Your task to perform on an android device: Open calendar and show me the third week of next month Image 0: 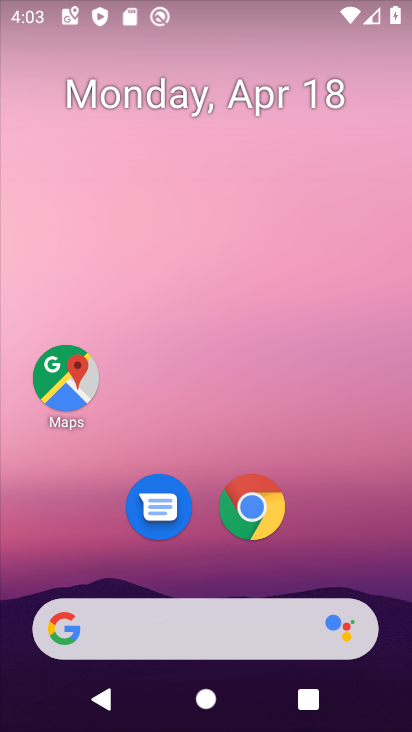
Step 0: drag from (258, 654) to (238, 1)
Your task to perform on an android device: Open calendar and show me the third week of next month Image 1: 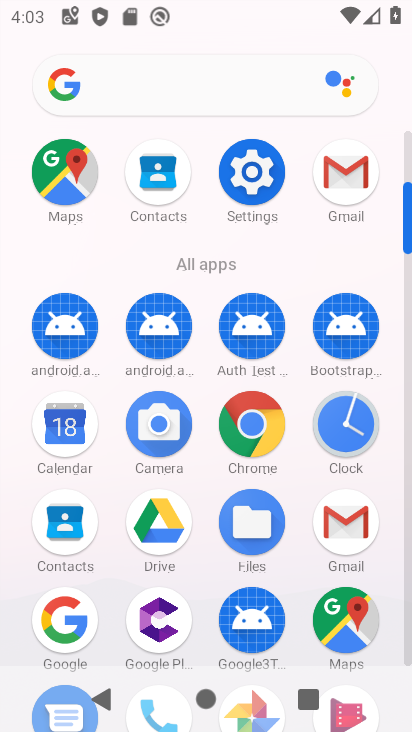
Step 1: click (58, 435)
Your task to perform on an android device: Open calendar and show me the third week of next month Image 2: 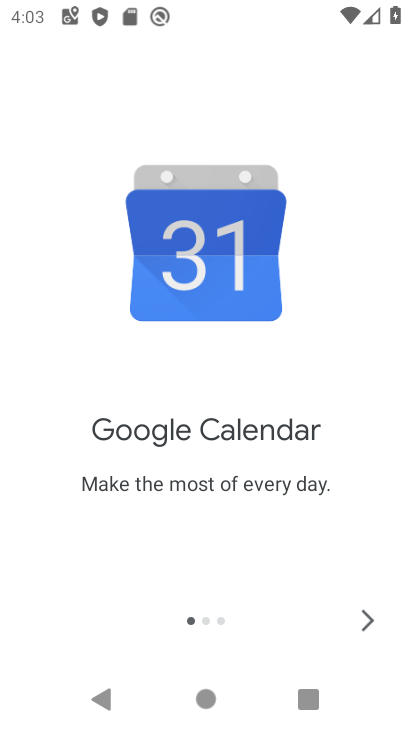
Step 2: click (366, 613)
Your task to perform on an android device: Open calendar and show me the third week of next month Image 3: 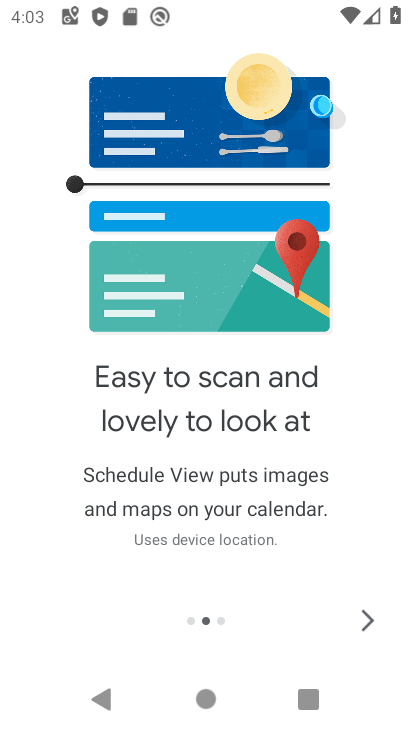
Step 3: click (367, 613)
Your task to perform on an android device: Open calendar and show me the third week of next month Image 4: 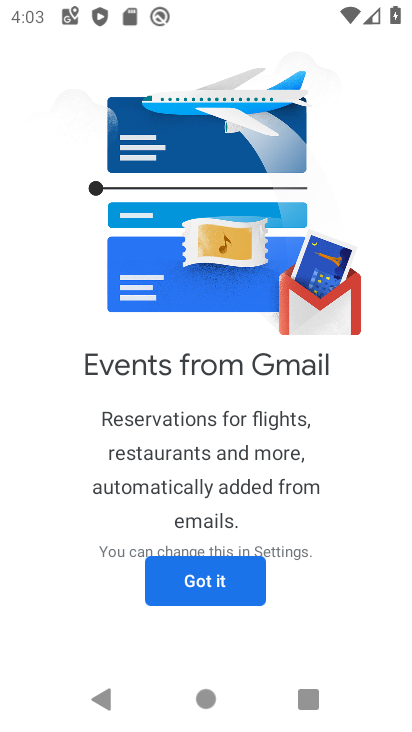
Step 4: click (184, 582)
Your task to perform on an android device: Open calendar and show me the third week of next month Image 5: 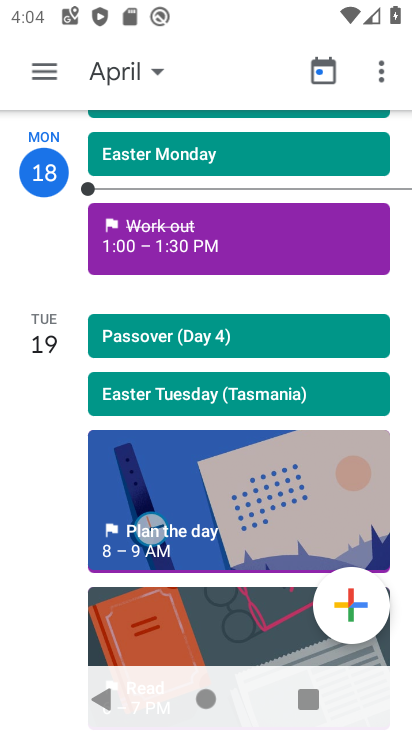
Step 5: click (115, 88)
Your task to perform on an android device: Open calendar and show me the third week of next month Image 6: 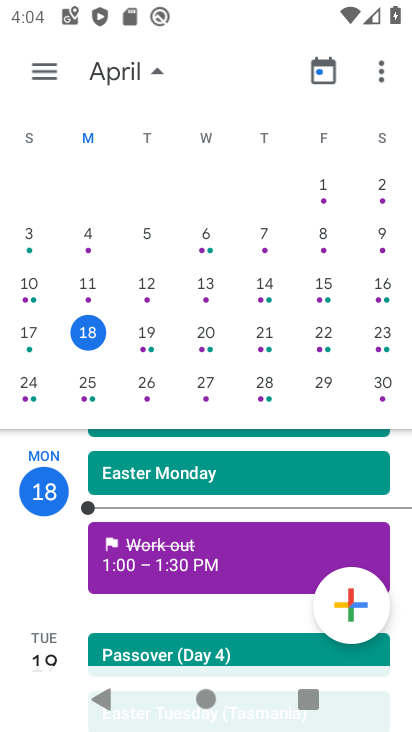
Step 6: drag from (304, 350) to (39, 337)
Your task to perform on an android device: Open calendar and show me the third week of next month Image 7: 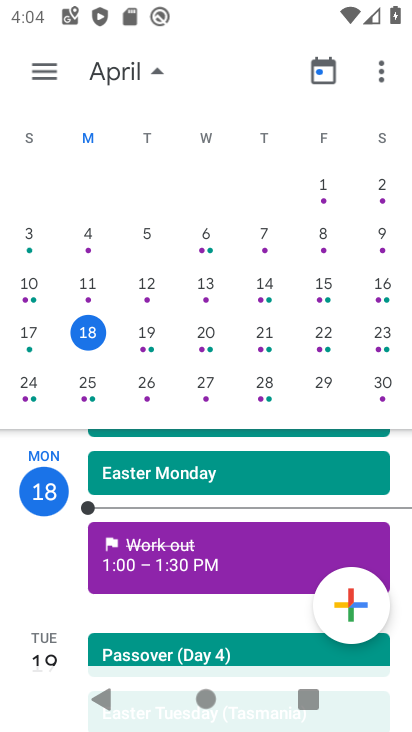
Step 7: drag from (368, 251) to (19, 293)
Your task to perform on an android device: Open calendar and show me the third week of next month Image 8: 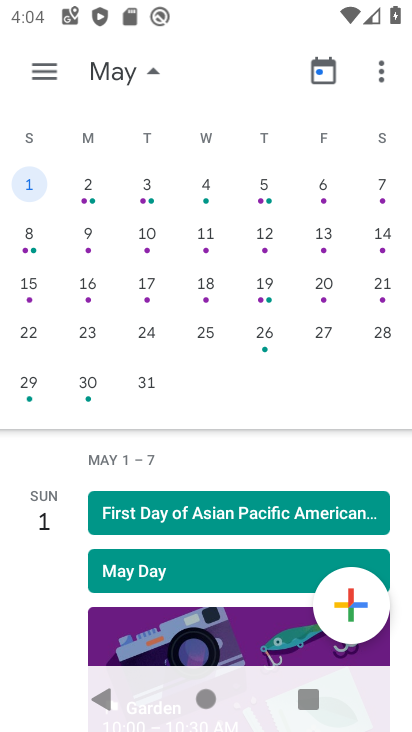
Step 8: click (25, 279)
Your task to perform on an android device: Open calendar and show me the third week of next month Image 9: 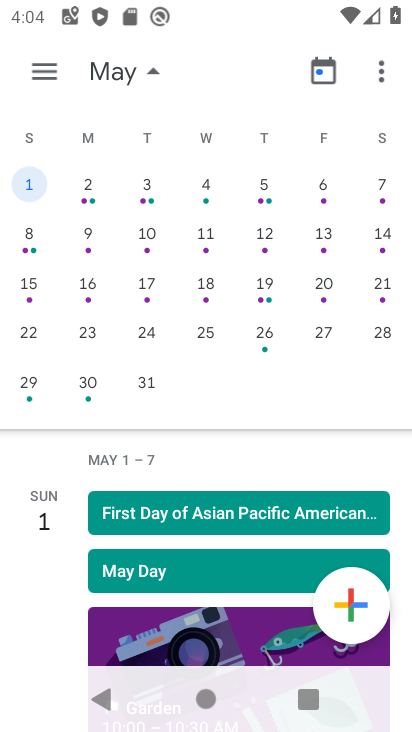
Step 9: click (25, 279)
Your task to perform on an android device: Open calendar and show me the third week of next month Image 10: 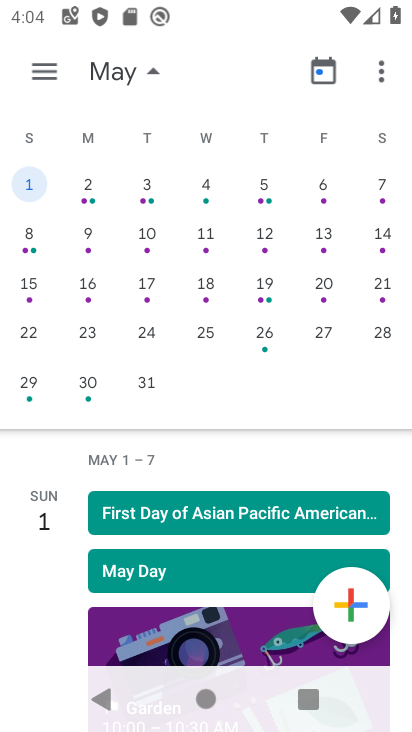
Step 10: click (38, 290)
Your task to perform on an android device: Open calendar and show me the third week of next month Image 11: 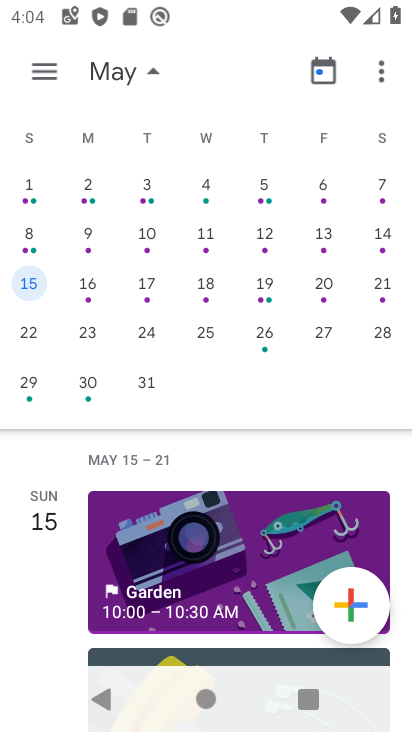
Step 11: task complete